Your task to perform on an android device: Open accessibility settings Image 0: 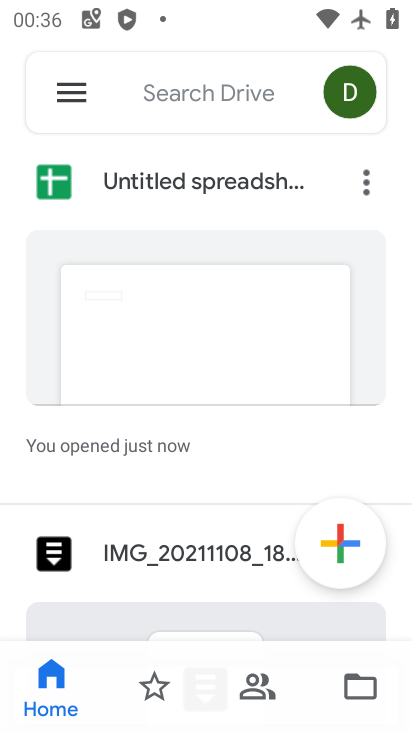
Step 0: press home button
Your task to perform on an android device: Open accessibility settings Image 1: 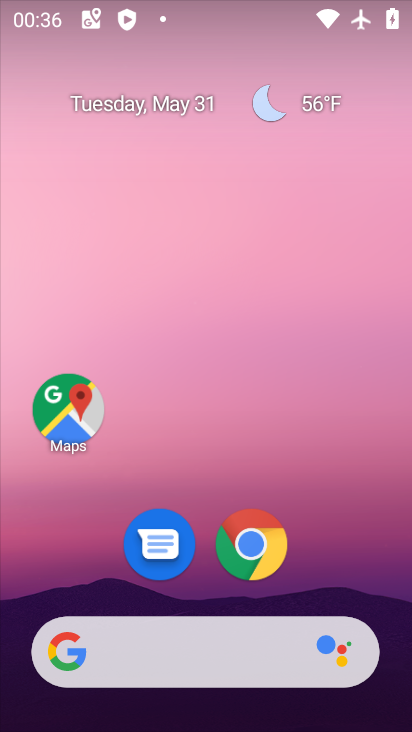
Step 1: drag from (309, 561) to (159, 143)
Your task to perform on an android device: Open accessibility settings Image 2: 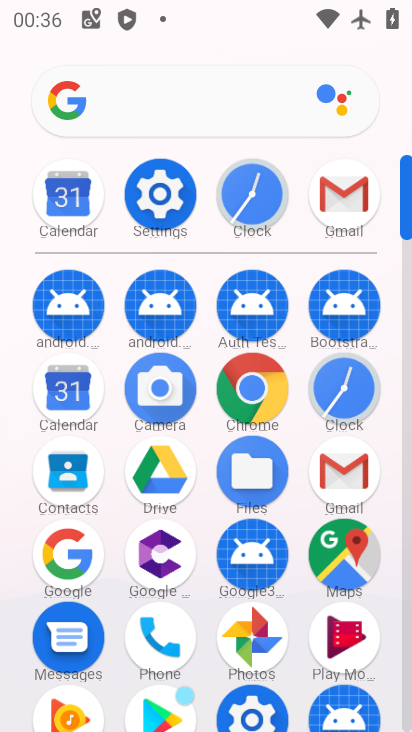
Step 2: click (160, 188)
Your task to perform on an android device: Open accessibility settings Image 3: 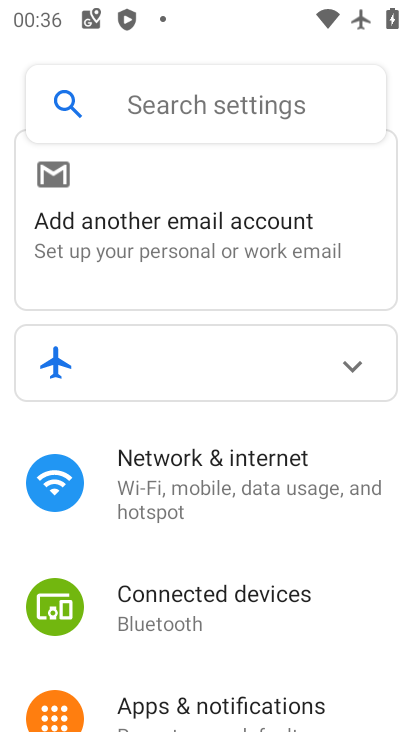
Step 3: drag from (223, 637) to (189, 284)
Your task to perform on an android device: Open accessibility settings Image 4: 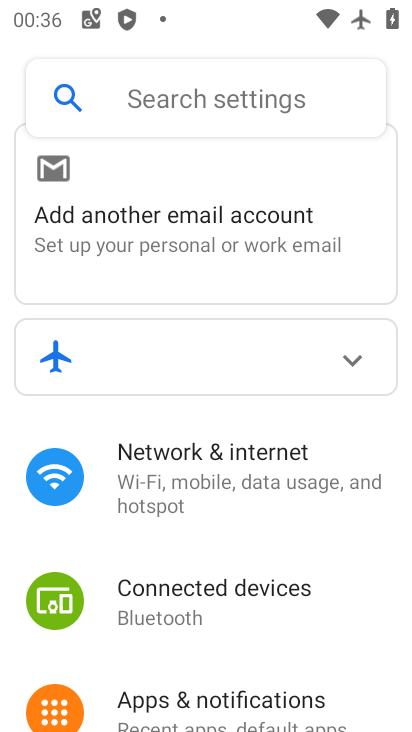
Step 4: drag from (277, 646) to (221, 400)
Your task to perform on an android device: Open accessibility settings Image 5: 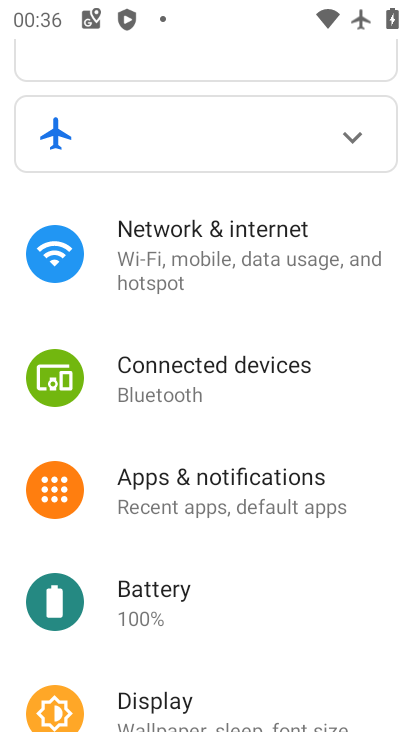
Step 5: drag from (234, 523) to (187, 281)
Your task to perform on an android device: Open accessibility settings Image 6: 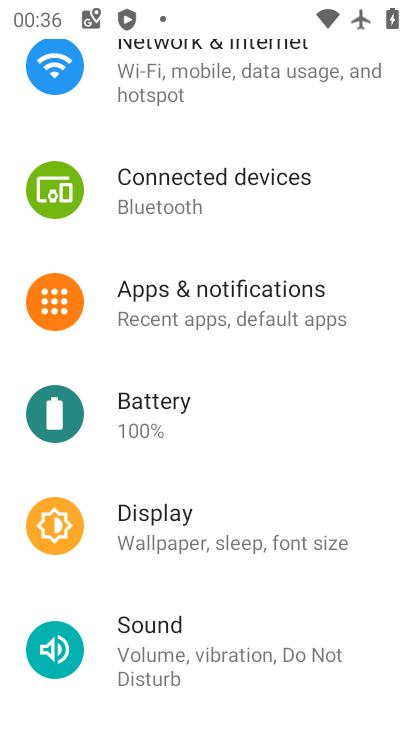
Step 6: drag from (241, 601) to (176, 203)
Your task to perform on an android device: Open accessibility settings Image 7: 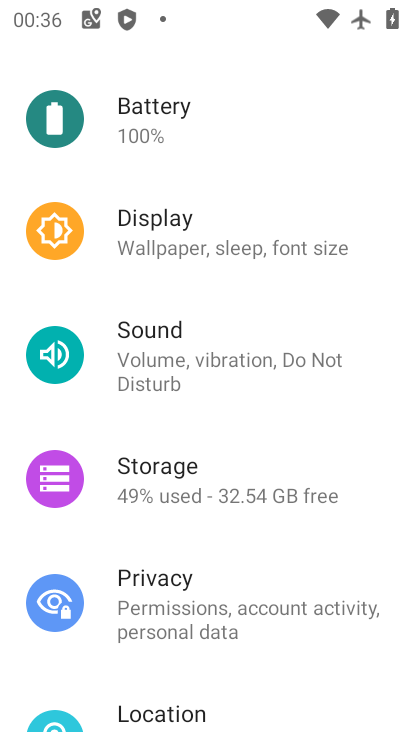
Step 7: drag from (225, 549) to (203, 350)
Your task to perform on an android device: Open accessibility settings Image 8: 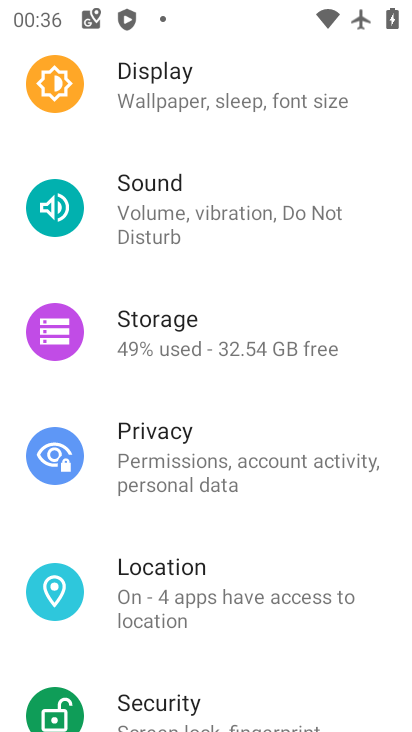
Step 8: drag from (219, 509) to (144, 127)
Your task to perform on an android device: Open accessibility settings Image 9: 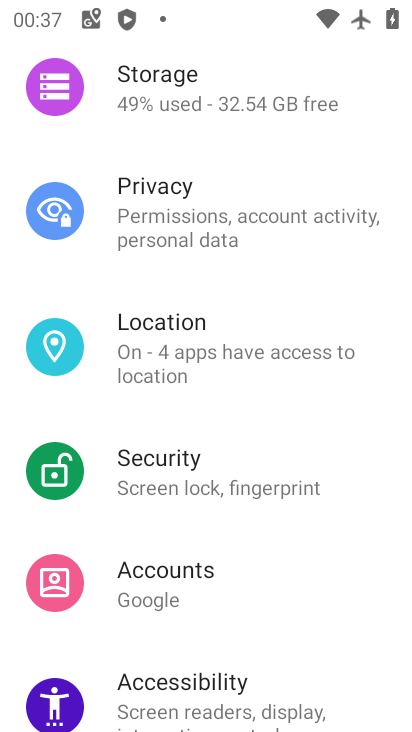
Step 9: click (183, 685)
Your task to perform on an android device: Open accessibility settings Image 10: 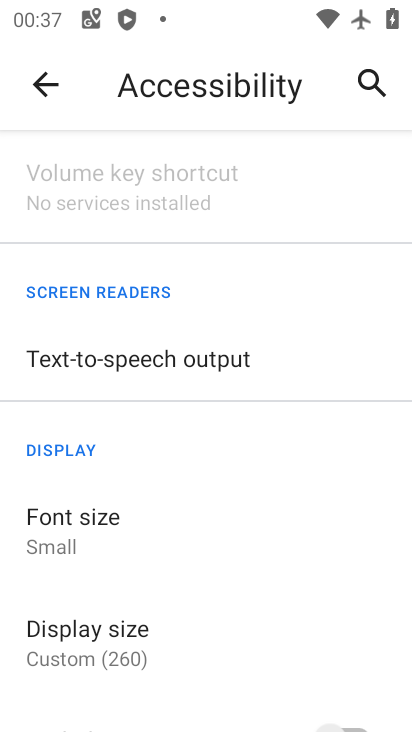
Step 10: task complete